Your task to perform on an android device: see tabs open on other devices in the chrome app Image 0: 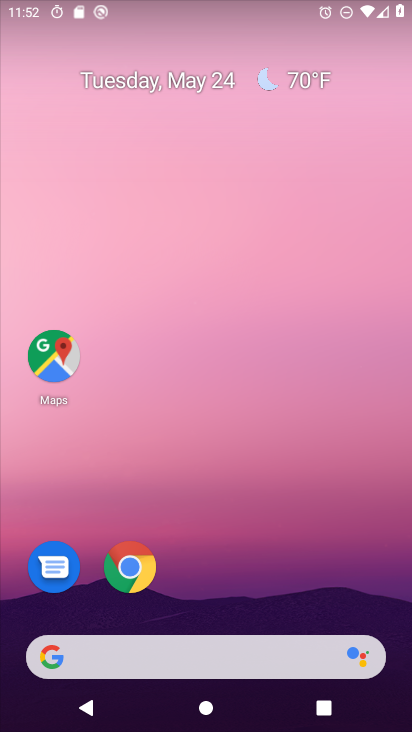
Step 0: click (140, 567)
Your task to perform on an android device: see tabs open on other devices in the chrome app Image 1: 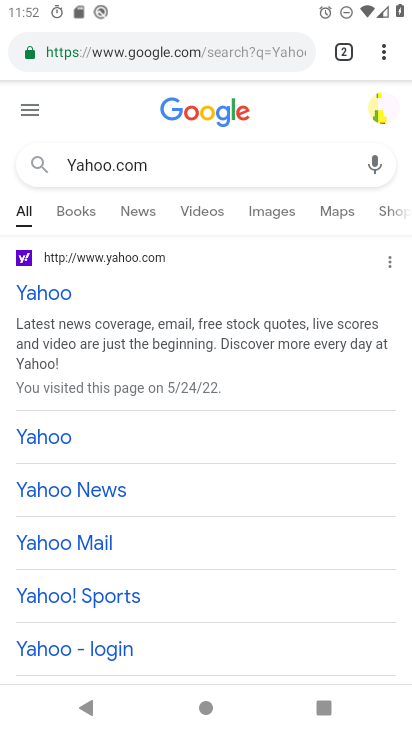
Step 1: click (386, 52)
Your task to perform on an android device: see tabs open on other devices in the chrome app Image 2: 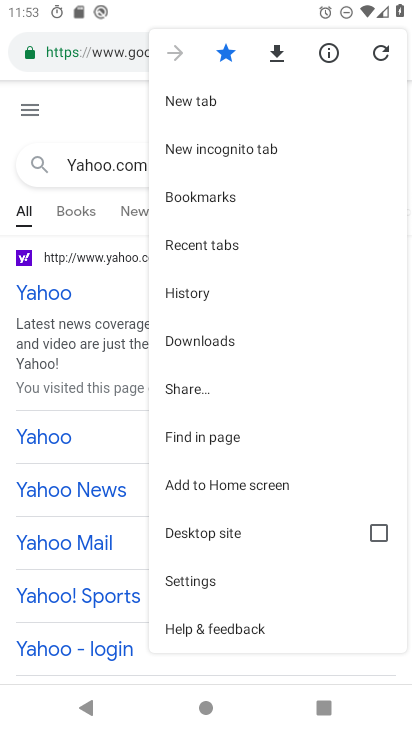
Step 2: click (193, 249)
Your task to perform on an android device: see tabs open on other devices in the chrome app Image 3: 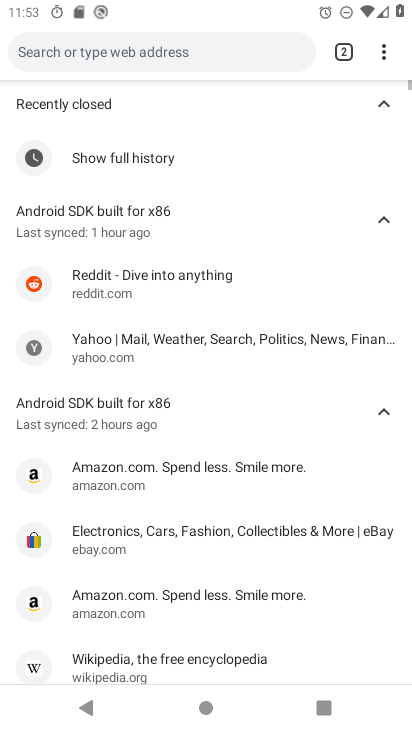
Step 3: task complete